Your task to perform on an android device: open app "LinkedIn" Image 0: 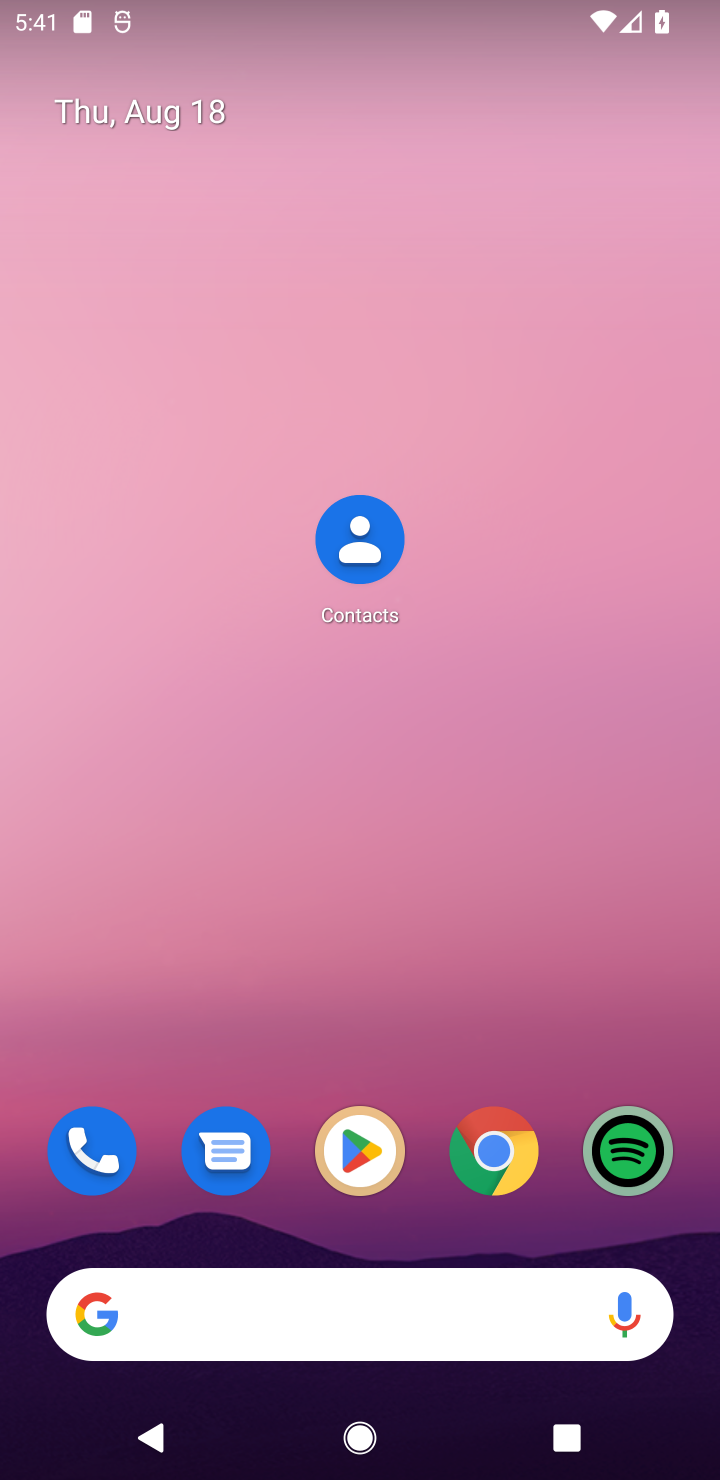
Step 0: click (386, 1175)
Your task to perform on an android device: open app "LinkedIn" Image 1: 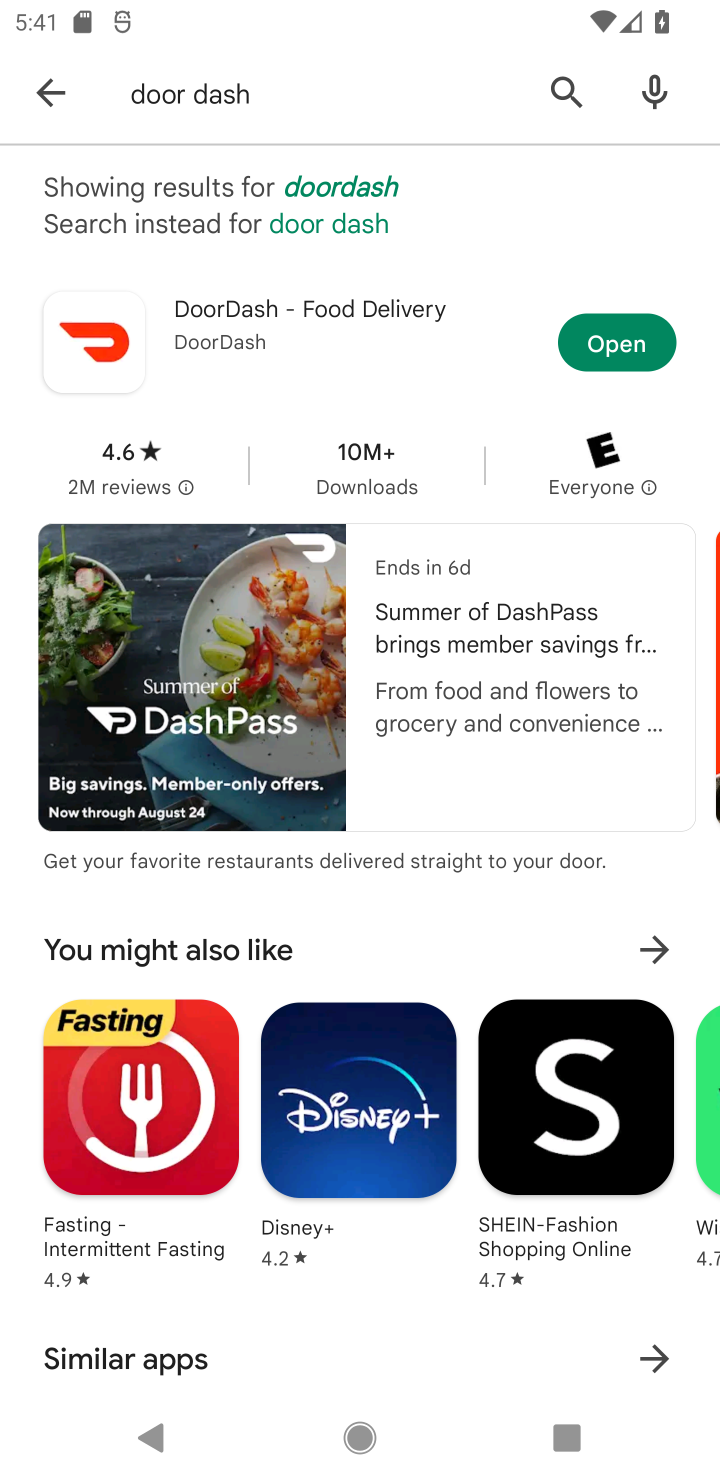
Step 1: click (549, 82)
Your task to perform on an android device: open app "LinkedIn" Image 2: 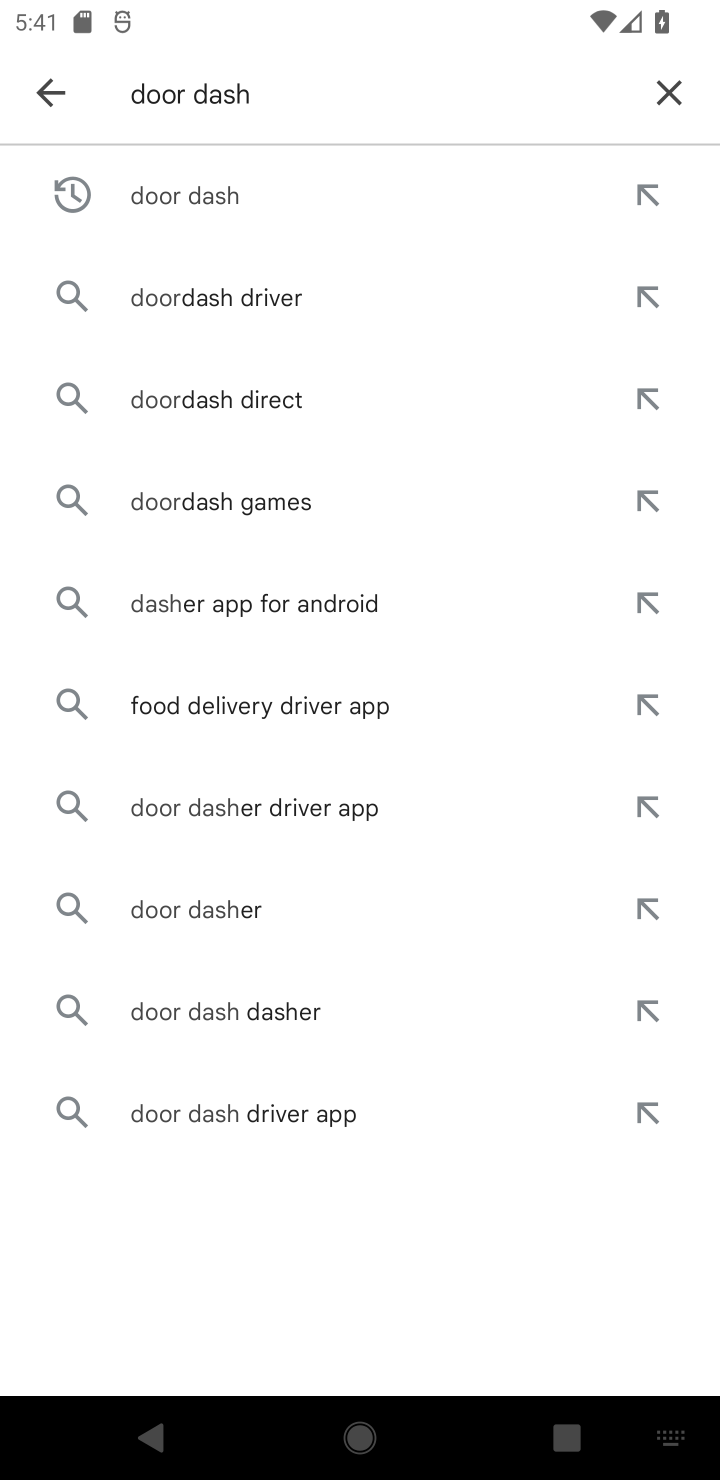
Step 2: click (685, 90)
Your task to perform on an android device: open app "LinkedIn" Image 3: 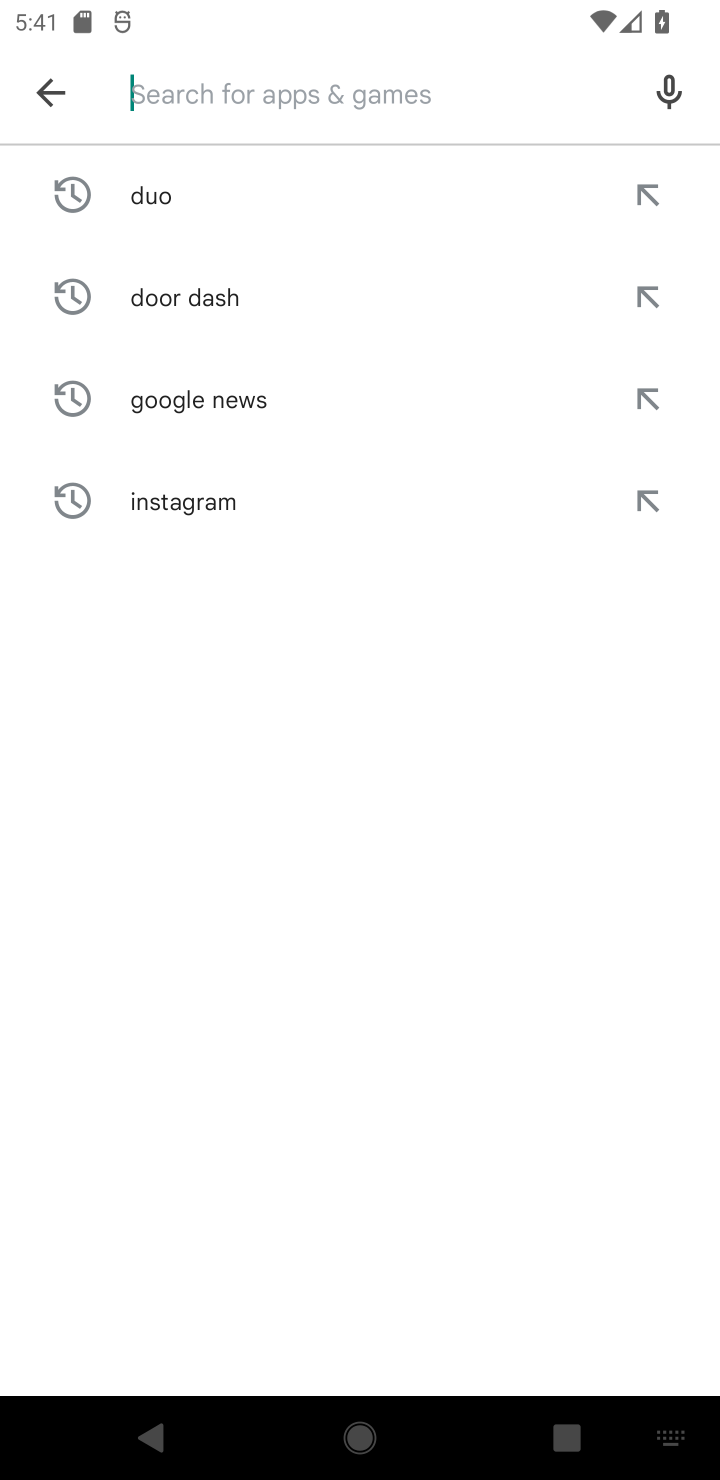
Step 3: type "linkedin"
Your task to perform on an android device: open app "LinkedIn" Image 4: 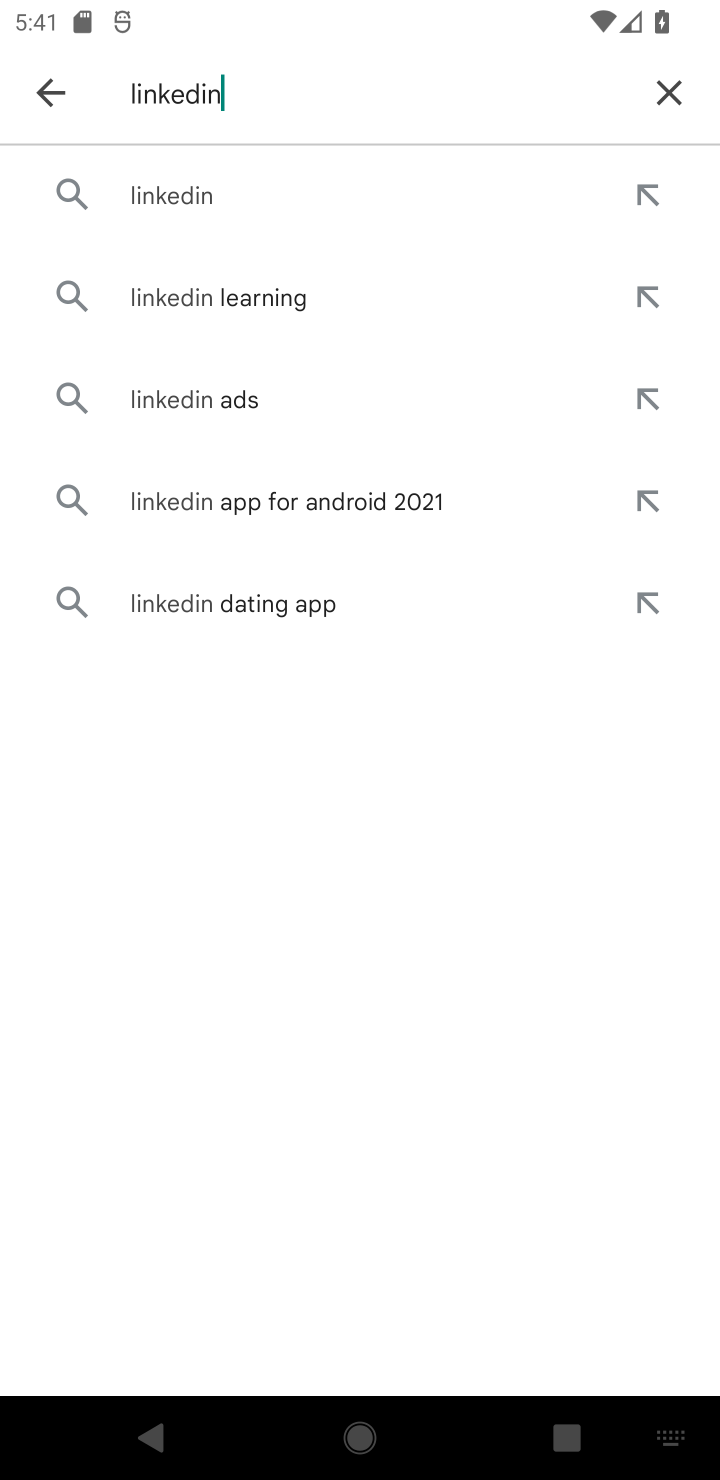
Step 4: click (253, 212)
Your task to perform on an android device: open app "LinkedIn" Image 5: 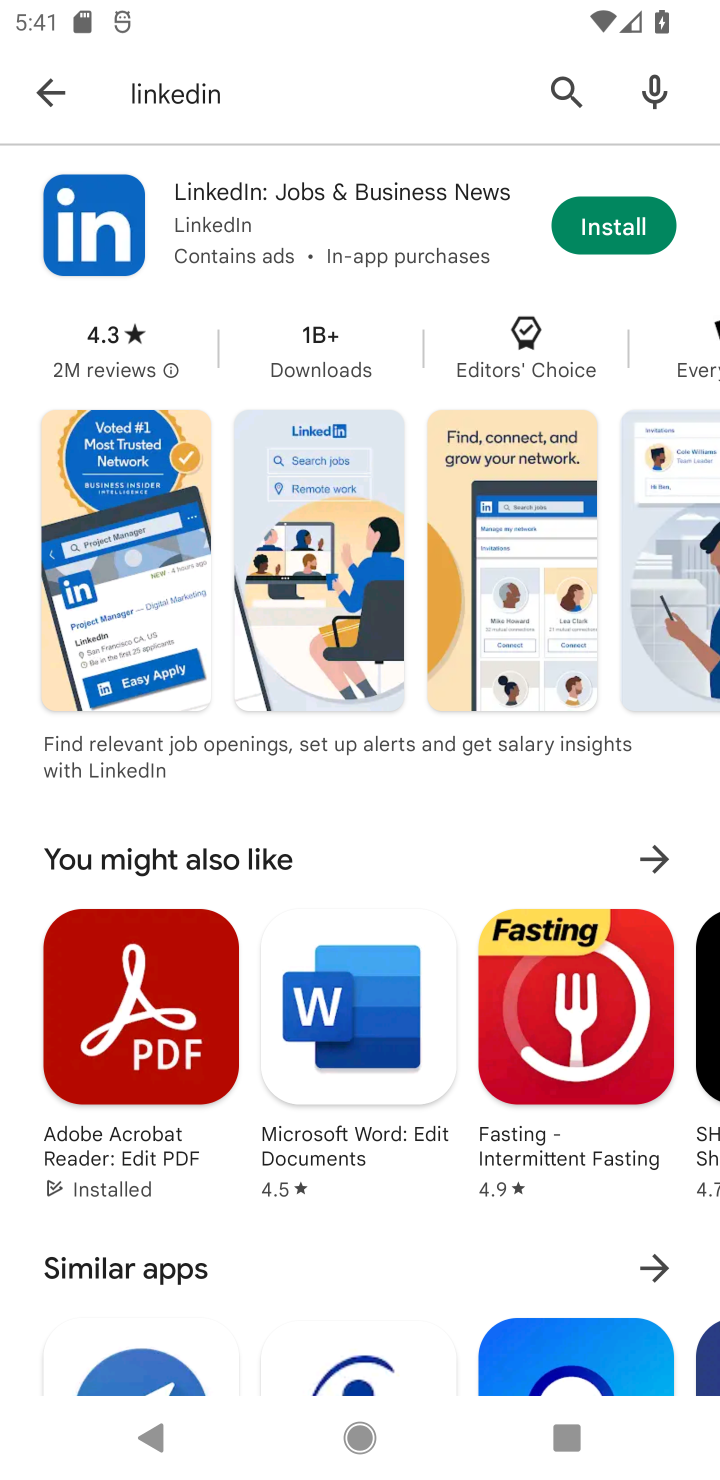
Step 5: click (572, 244)
Your task to perform on an android device: open app "LinkedIn" Image 6: 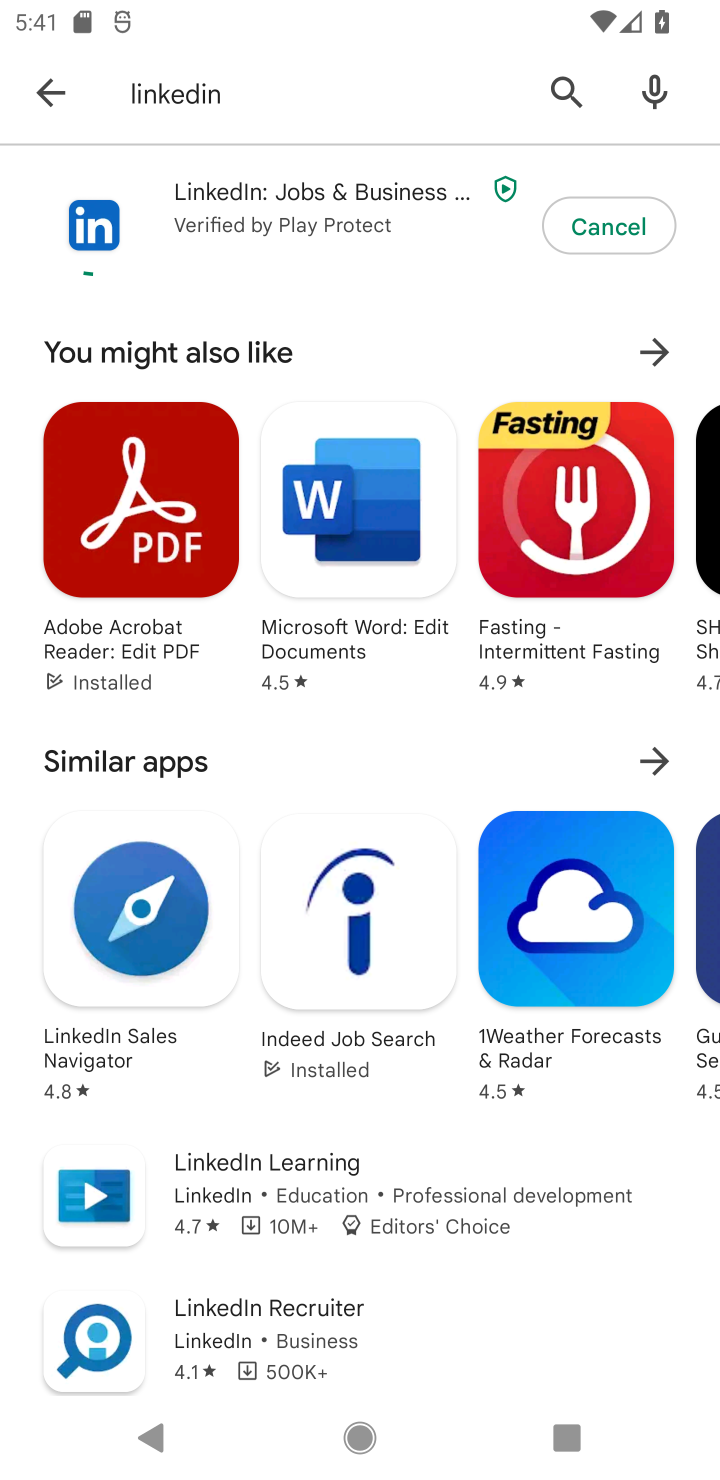
Step 6: task complete